Your task to perform on an android device: Open settings on Google Maps Image 0: 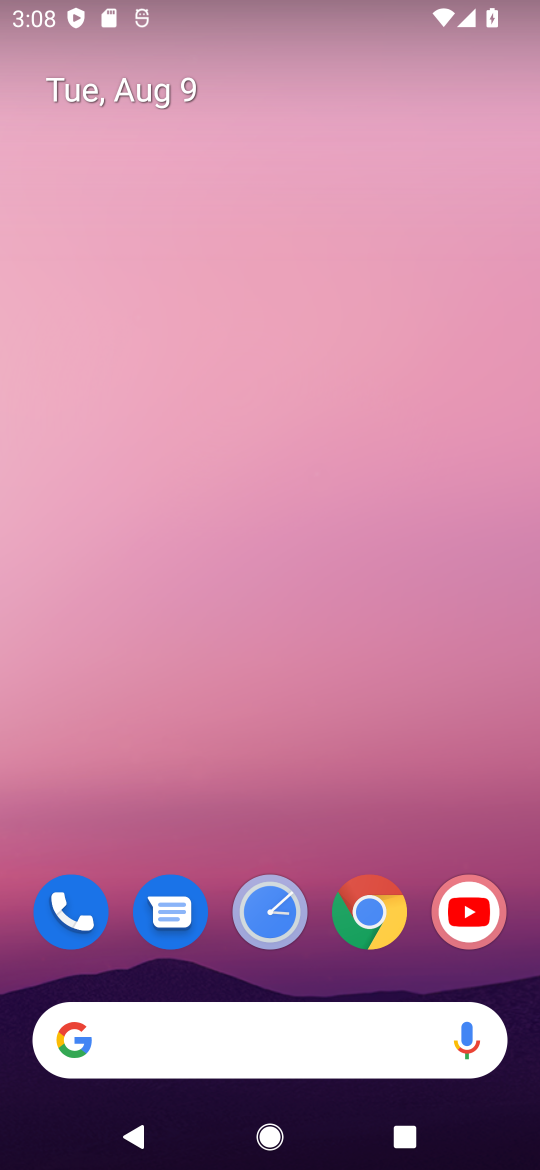
Step 0: drag from (177, 1) to (454, 13)
Your task to perform on an android device: Open settings on Google Maps Image 1: 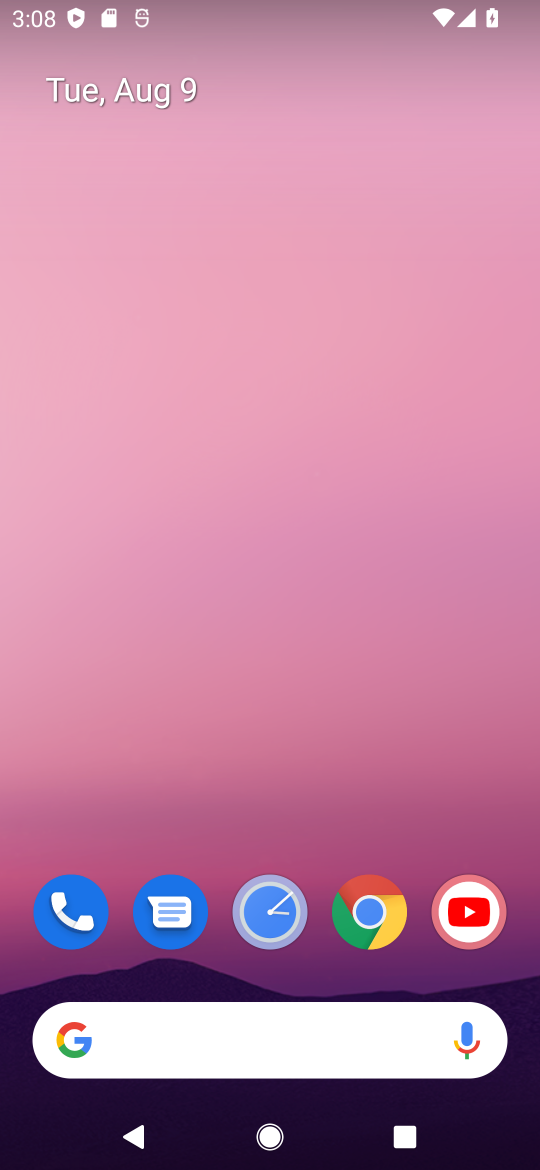
Step 1: drag from (320, 838) to (289, 0)
Your task to perform on an android device: Open settings on Google Maps Image 2: 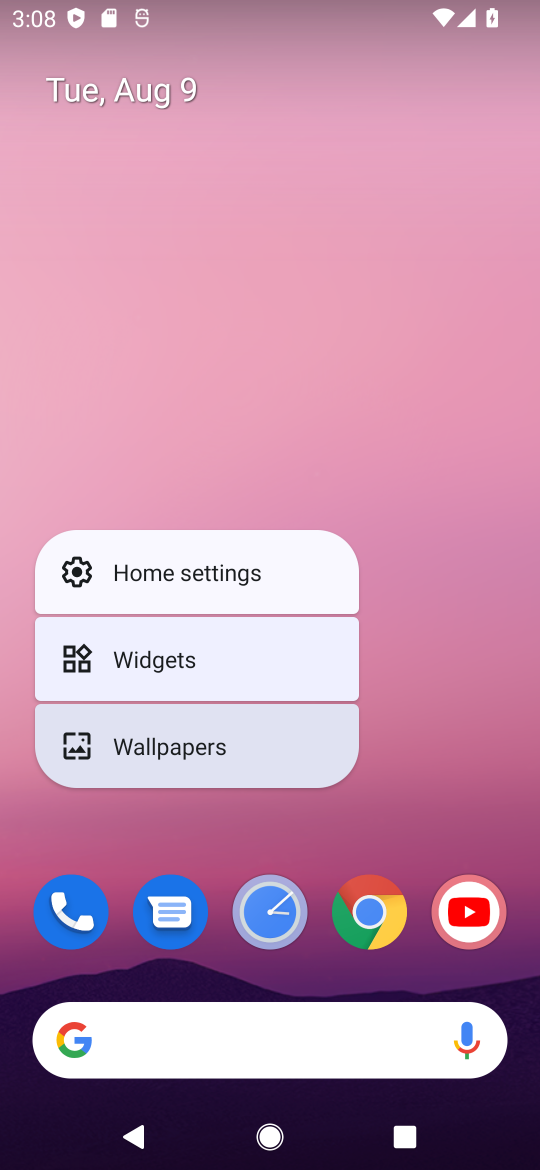
Step 2: click (362, 367)
Your task to perform on an android device: Open settings on Google Maps Image 3: 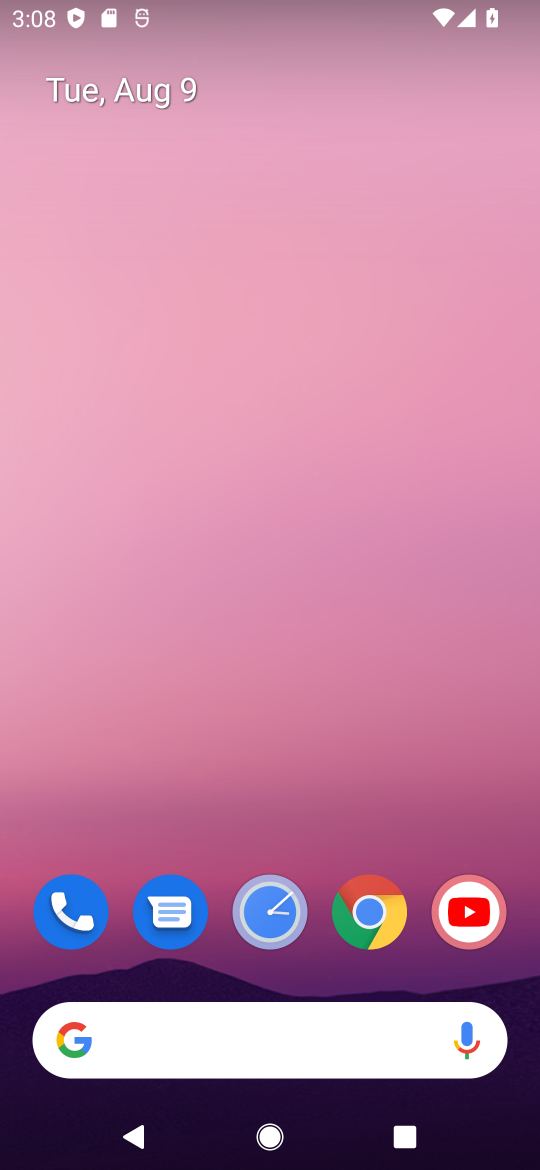
Step 3: drag from (299, 819) to (273, 72)
Your task to perform on an android device: Open settings on Google Maps Image 4: 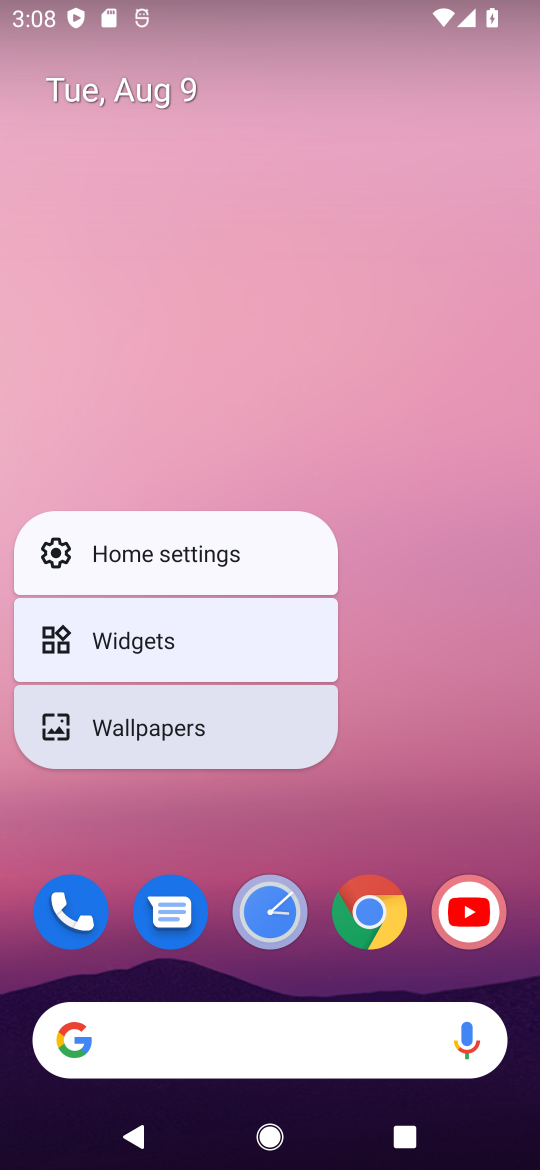
Step 4: click (438, 448)
Your task to perform on an android device: Open settings on Google Maps Image 5: 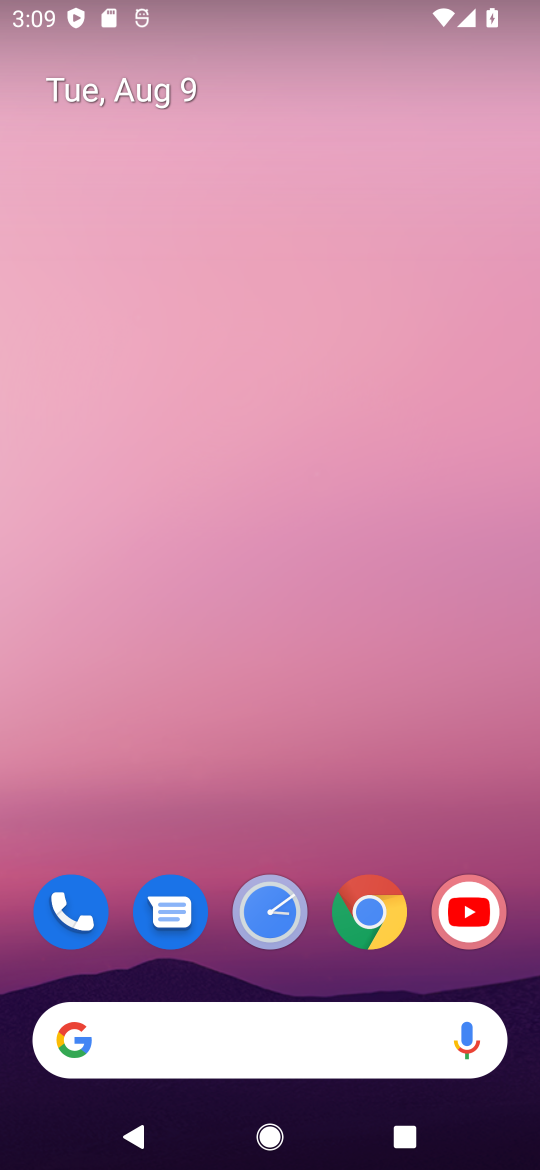
Step 5: drag from (269, 780) to (282, 9)
Your task to perform on an android device: Open settings on Google Maps Image 6: 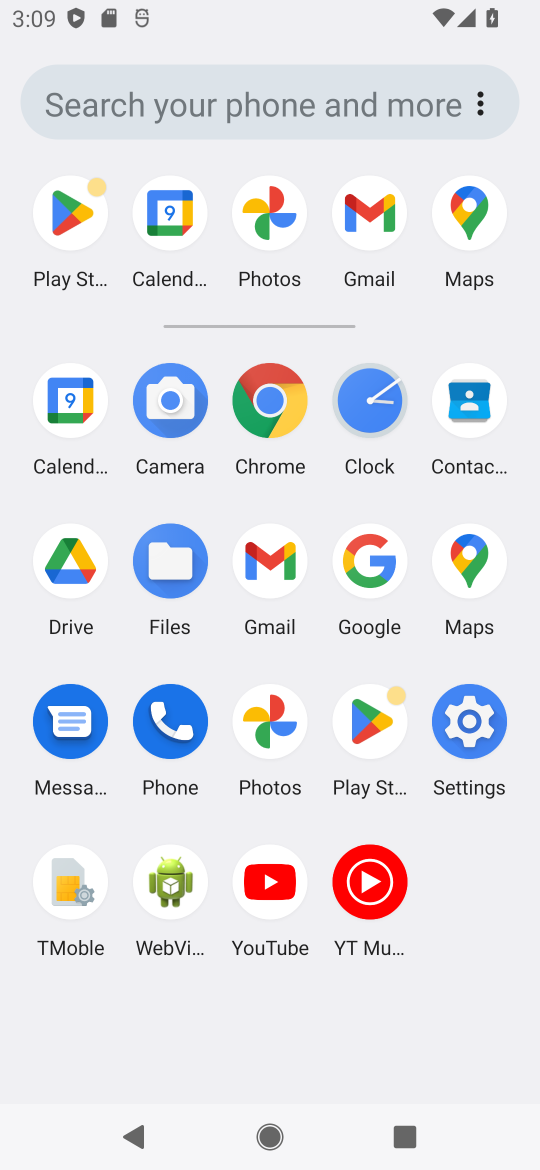
Step 6: click (476, 547)
Your task to perform on an android device: Open settings on Google Maps Image 7: 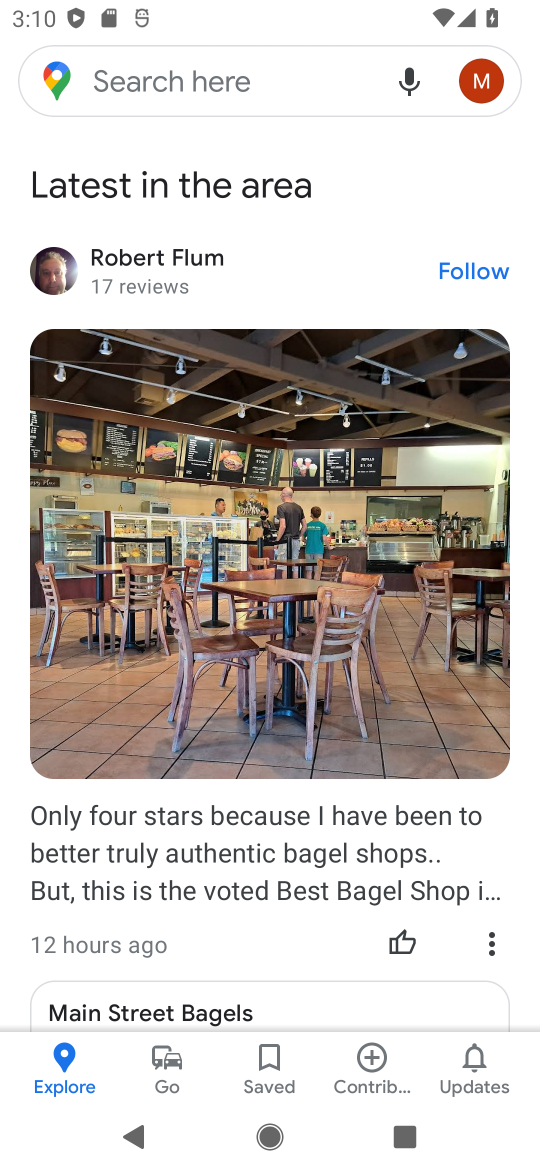
Step 7: click (476, 88)
Your task to perform on an android device: Open settings on Google Maps Image 8: 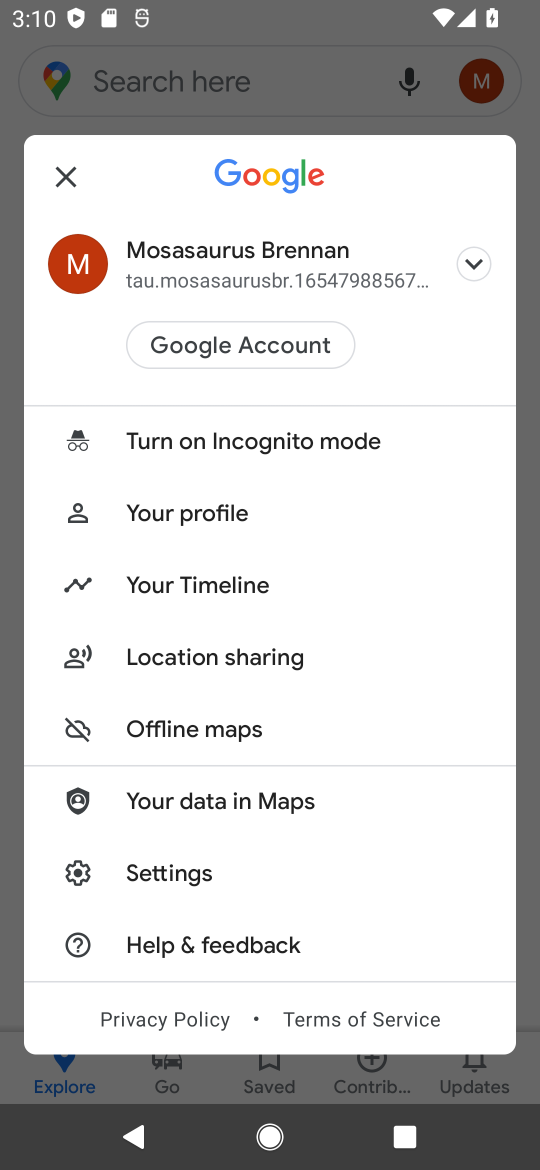
Step 8: click (177, 870)
Your task to perform on an android device: Open settings on Google Maps Image 9: 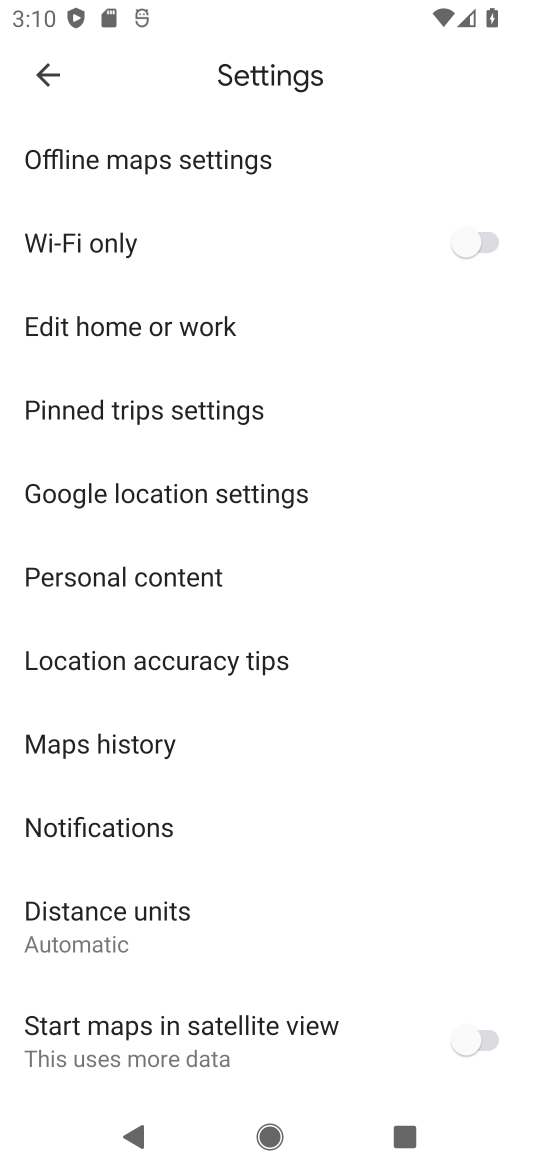
Step 9: task complete